Your task to perform on an android device: How much does a 2 bedroom apartment rent for in Philadelphia? Image 0: 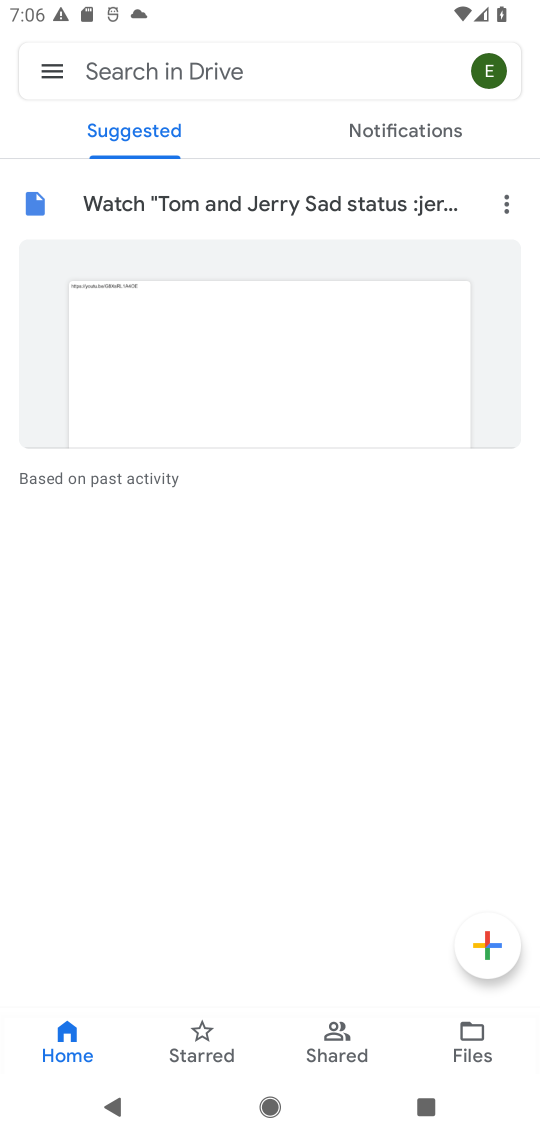
Step 0: press home button
Your task to perform on an android device: How much does a 2 bedroom apartment rent for in Philadelphia? Image 1: 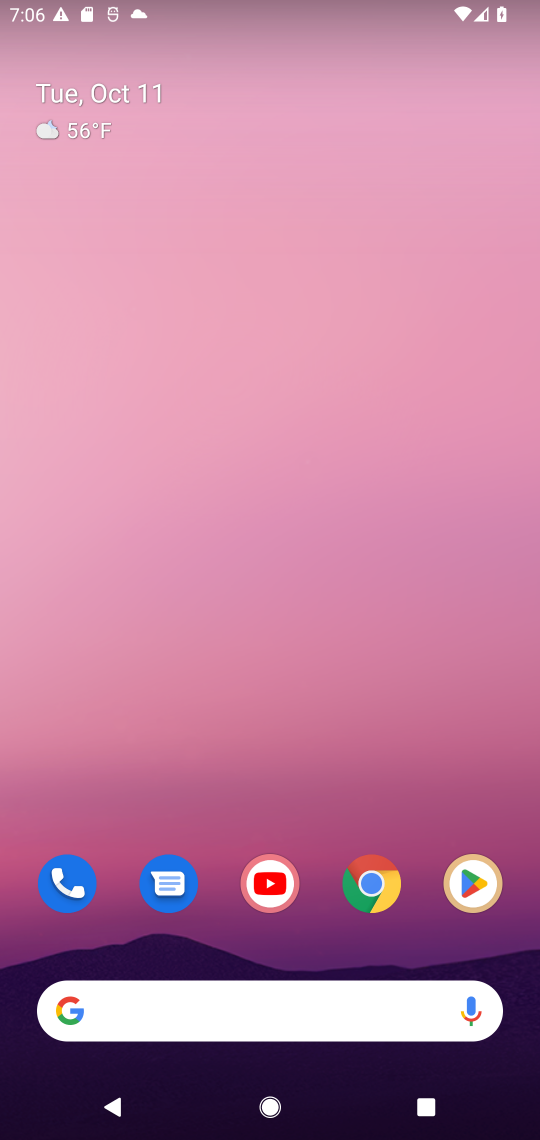
Step 1: drag from (336, 937) to (415, 92)
Your task to perform on an android device: How much does a 2 bedroom apartment rent for in Philadelphia? Image 2: 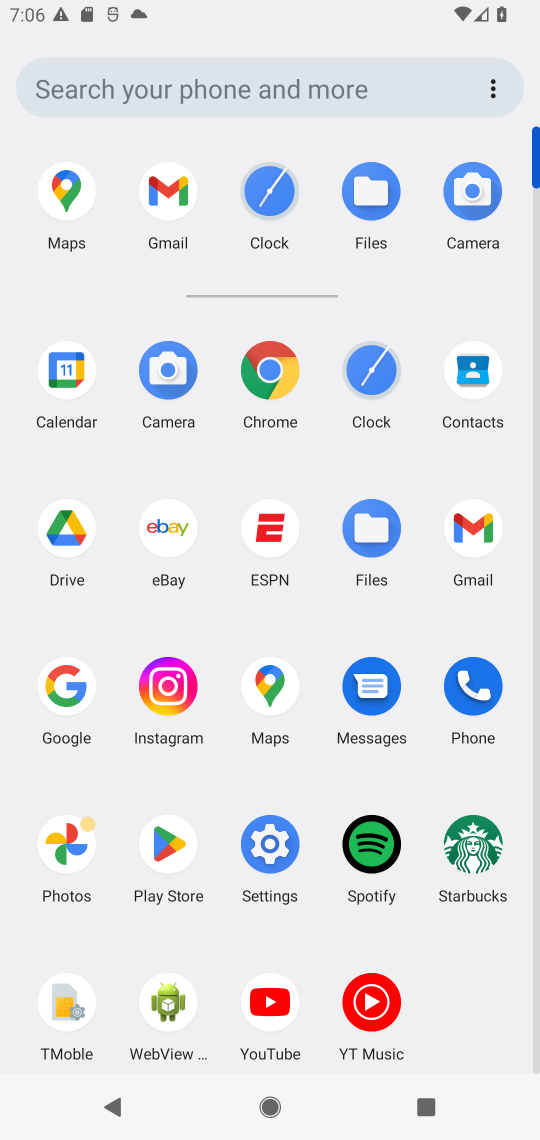
Step 2: click (264, 369)
Your task to perform on an android device: How much does a 2 bedroom apartment rent for in Philadelphia? Image 3: 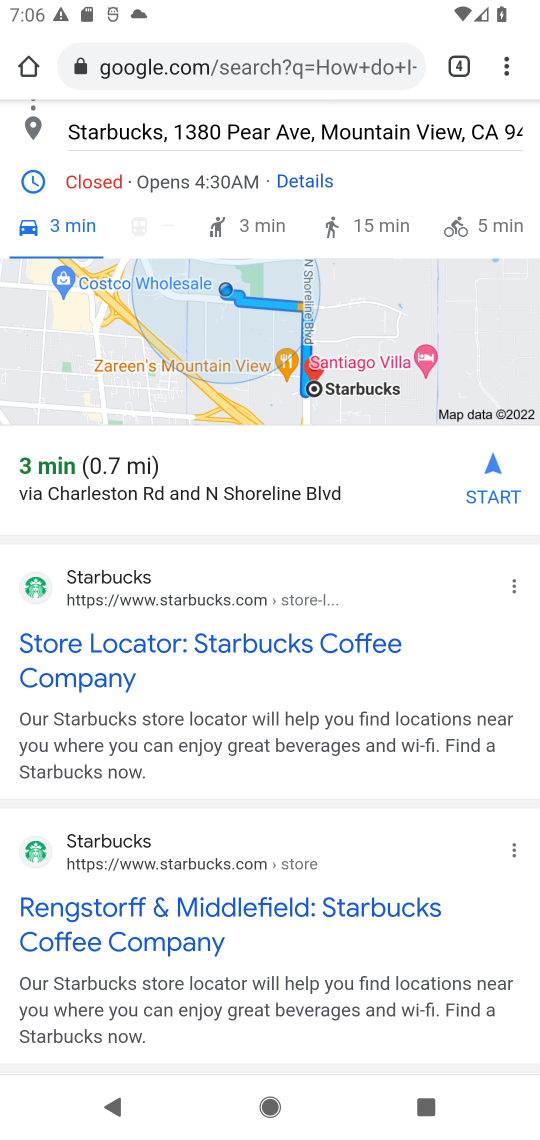
Step 3: click (329, 78)
Your task to perform on an android device: How much does a 2 bedroom apartment rent for in Philadelphia? Image 4: 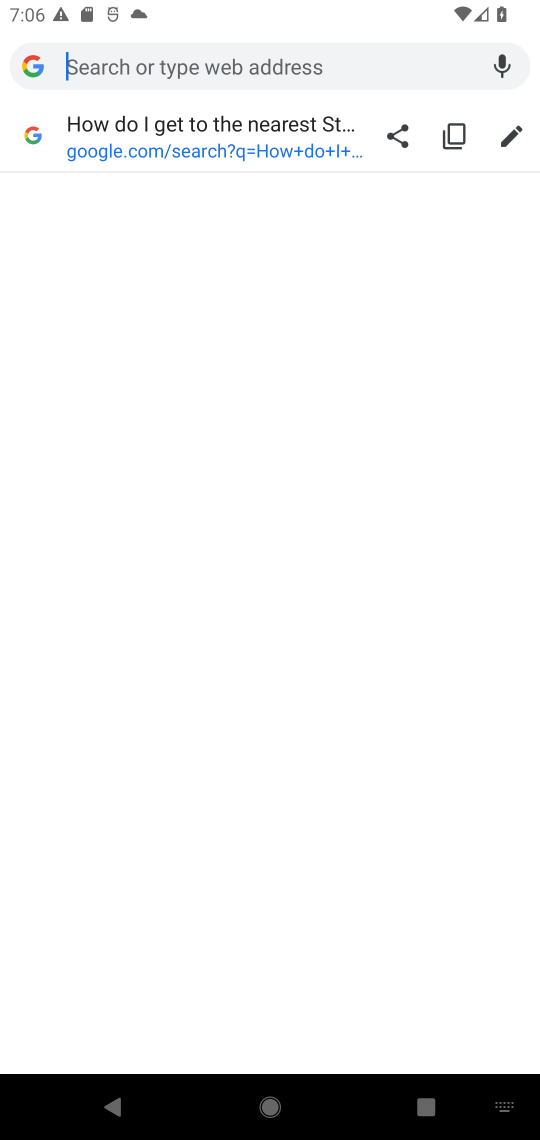
Step 4: type "How much does a 2 bedroom apartment rent for in "
Your task to perform on an android device: How much does a 2 bedroom apartment rent for in Philadelphia? Image 5: 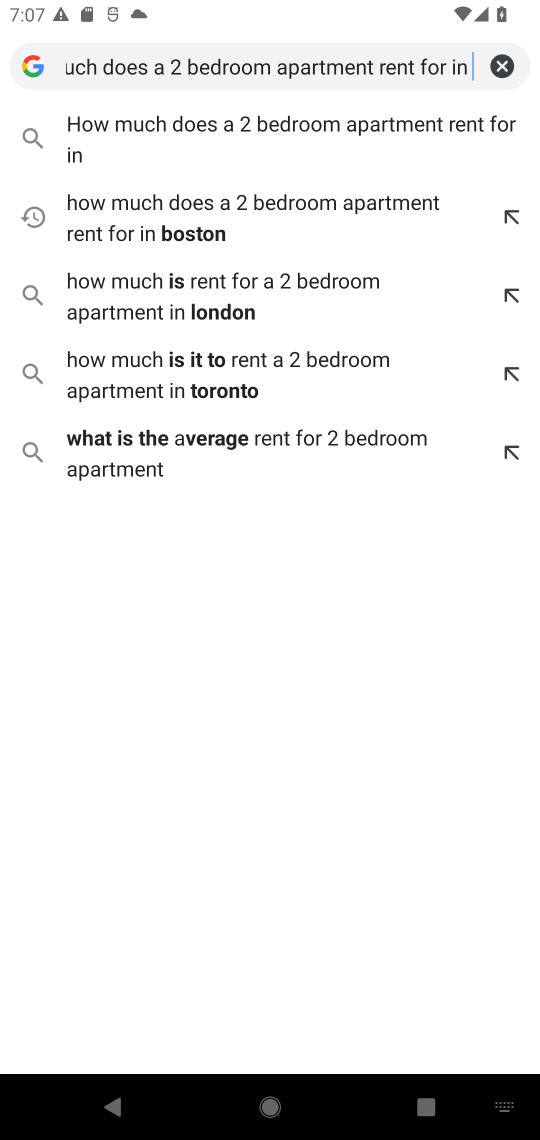
Step 5: type "Philadelphia?"
Your task to perform on an android device: How much does a 2 bedroom apartment rent for in Philadelphia? Image 6: 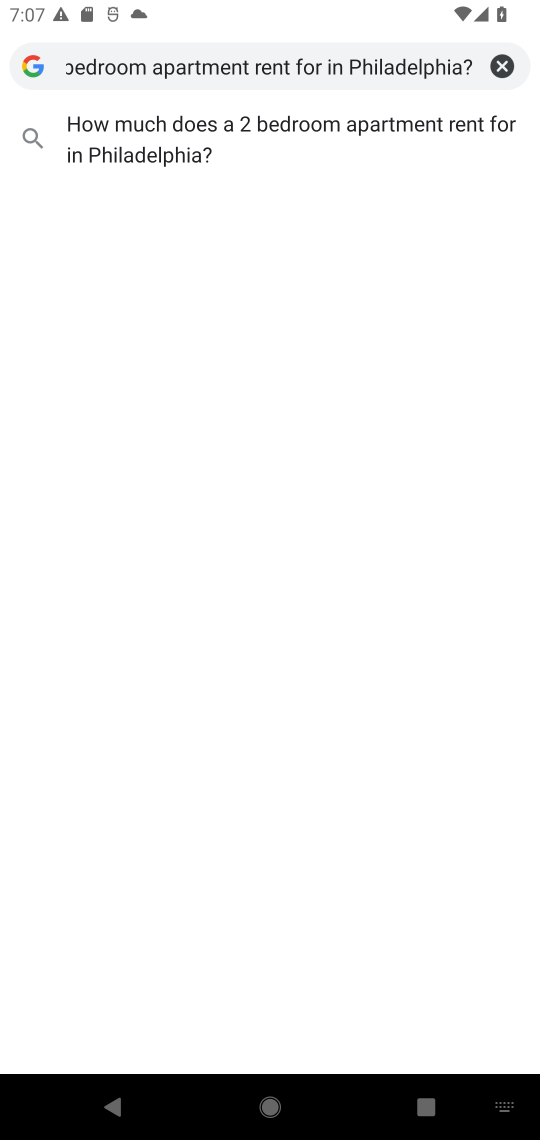
Step 6: press enter
Your task to perform on an android device: How much does a 2 bedroom apartment rent for in Philadelphia? Image 7: 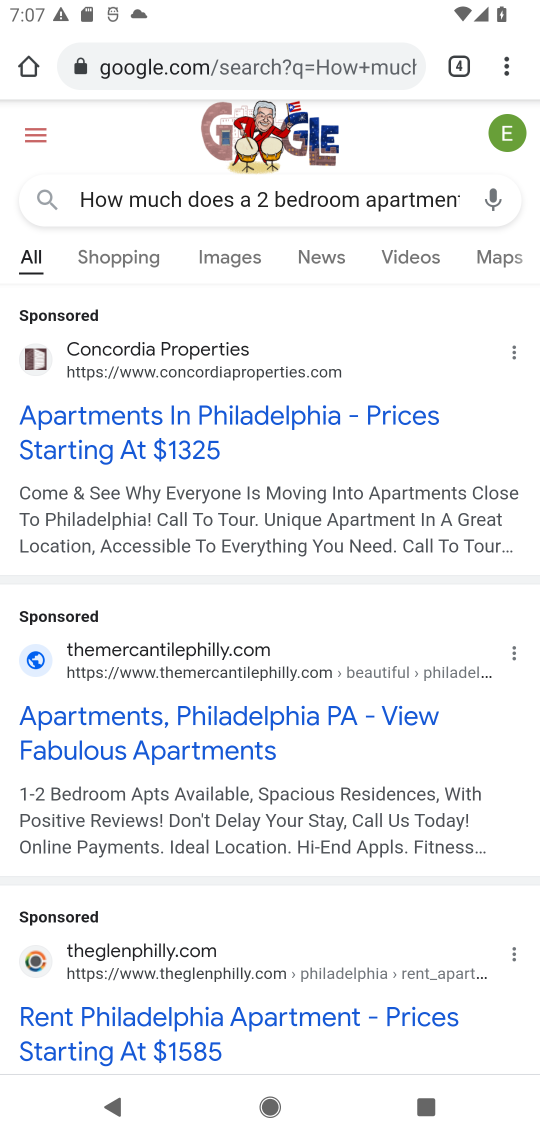
Step 7: task complete